Your task to perform on an android device: Turn on the flashlight Image 0: 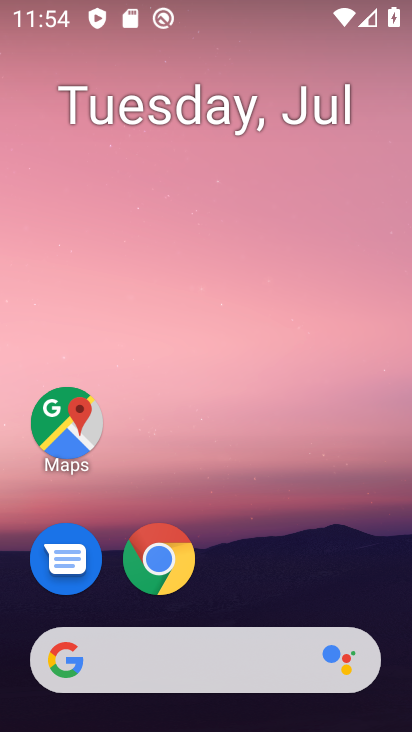
Step 0: drag from (229, 608) to (302, 104)
Your task to perform on an android device: Turn on the flashlight Image 1: 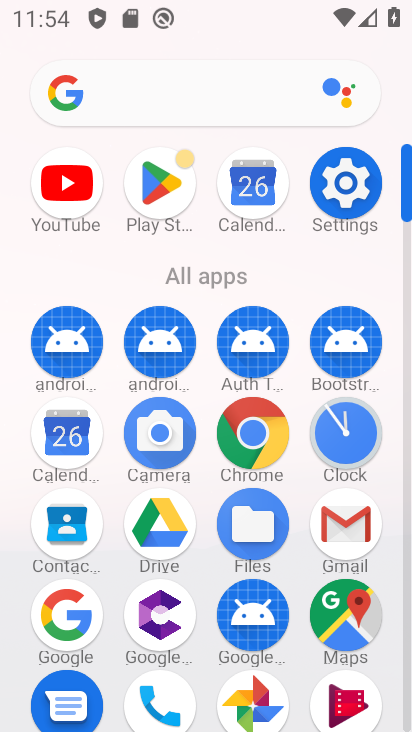
Step 1: click (348, 171)
Your task to perform on an android device: Turn on the flashlight Image 2: 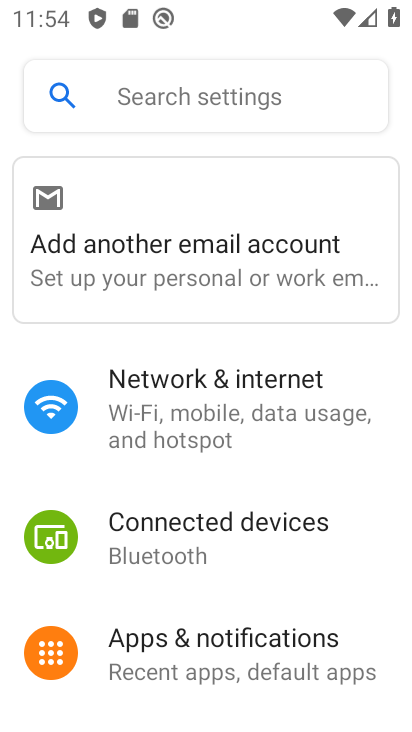
Step 2: click (227, 106)
Your task to perform on an android device: Turn on the flashlight Image 3: 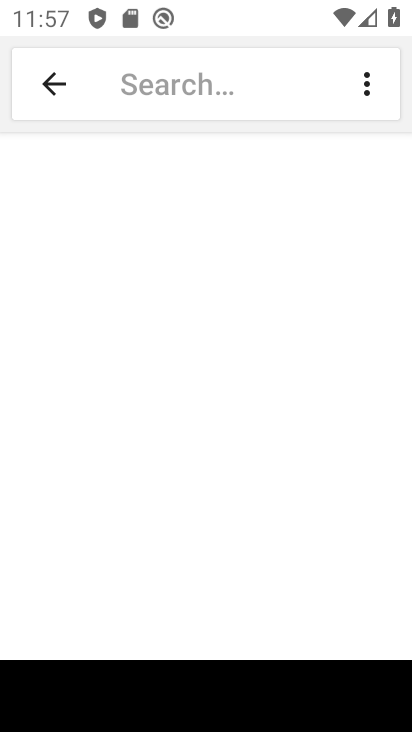
Step 3: click (219, 93)
Your task to perform on an android device: Turn on the flashlight Image 4: 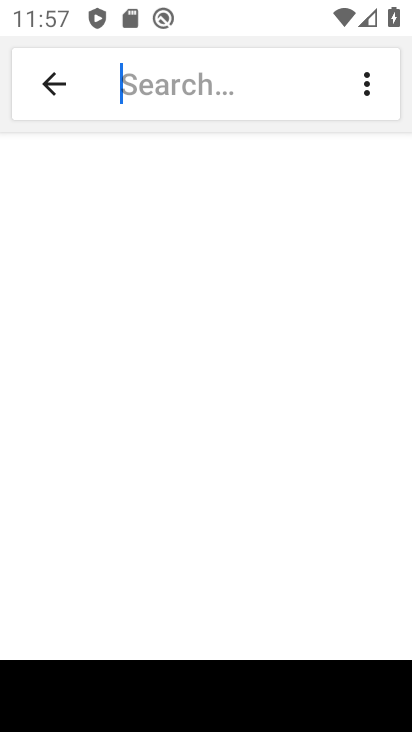
Step 4: click (175, 89)
Your task to perform on an android device: Turn on the flashlight Image 5: 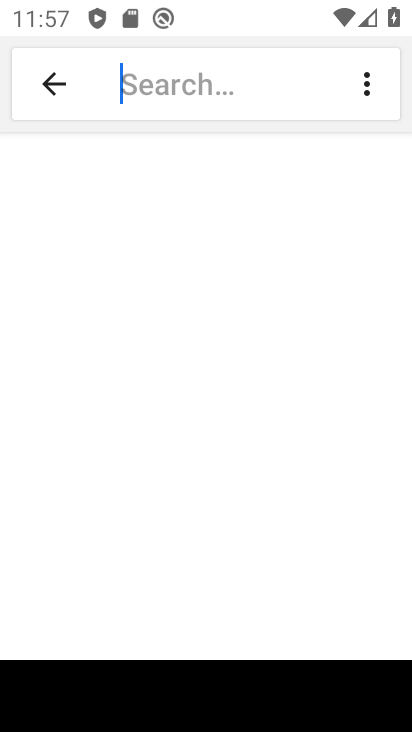
Step 5: type "flashlight"
Your task to perform on an android device: Turn on the flashlight Image 6: 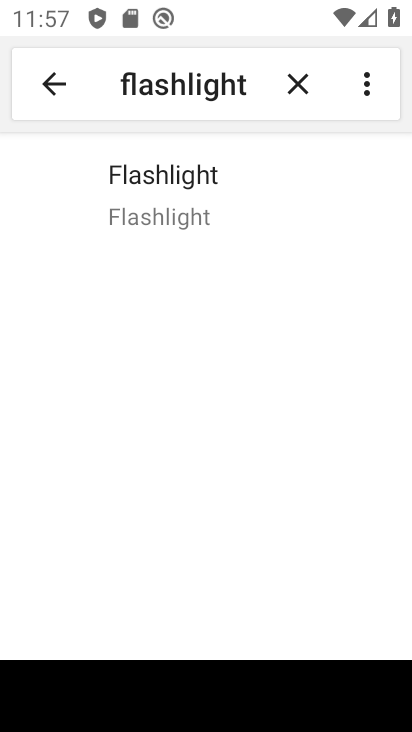
Step 6: click (185, 179)
Your task to perform on an android device: Turn on the flashlight Image 7: 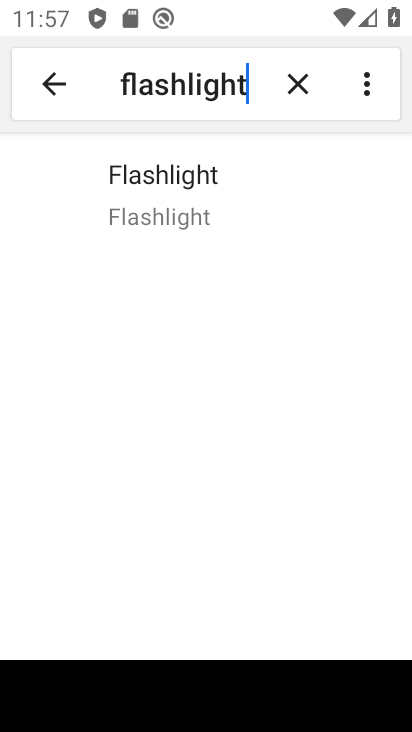
Step 7: task complete